Your task to perform on an android device: Search for the new Nintendo switch on Walmart. Image 0: 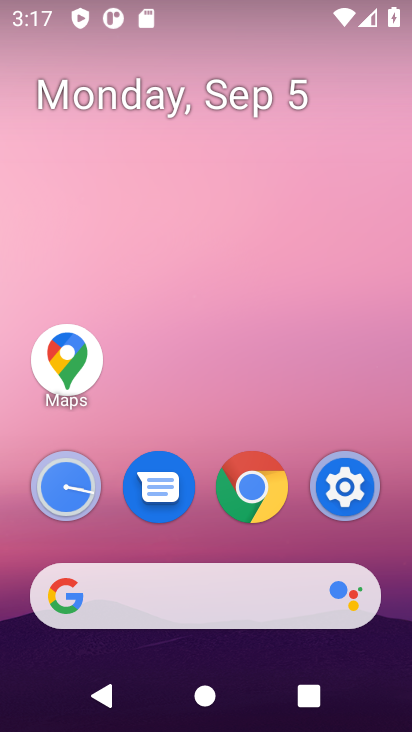
Step 0: drag from (221, 517) to (245, 43)
Your task to perform on an android device: Search for the new Nintendo switch on Walmart. Image 1: 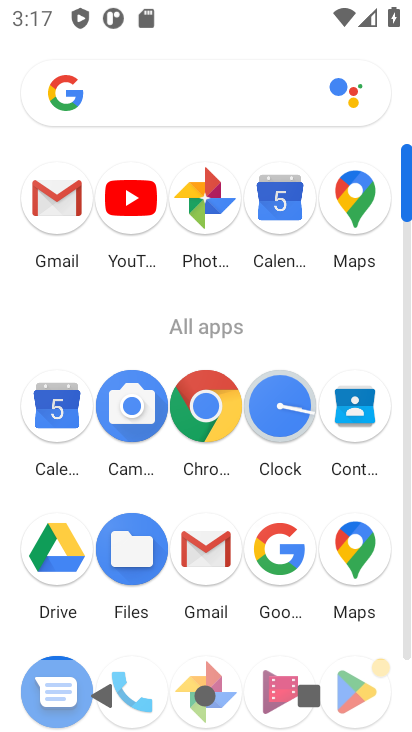
Step 1: click (208, 409)
Your task to perform on an android device: Search for the new Nintendo switch on Walmart. Image 2: 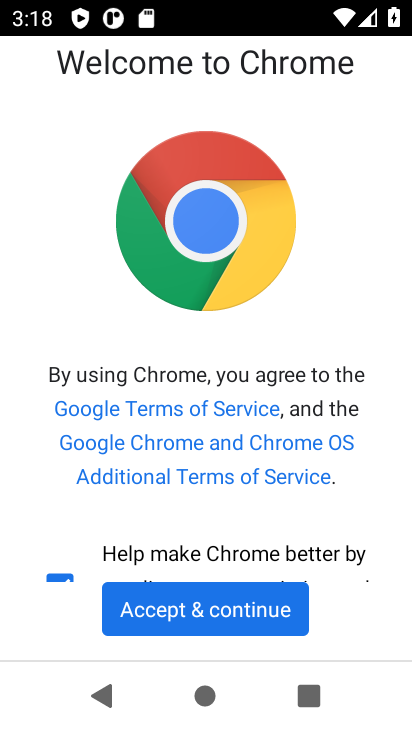
Step 2: click (240, 596)
Your task to perform on an android device: Search for the new Nintendo switch on Walmart. Image 3: 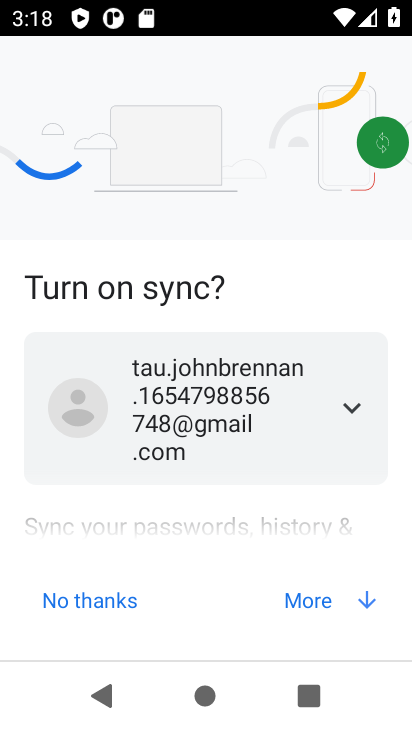
Step 3: click (314, 603)
Your task to perform on an android device: Search for the new Nintendo switch on Walmart. Image 4: 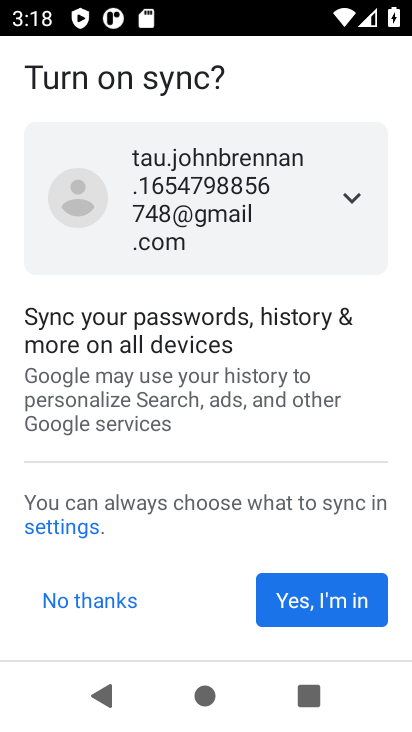
Step 4: click (357, 606)
Your task to perform on an android device: Search for the new Nintendo switch on Walmart. Image 5: 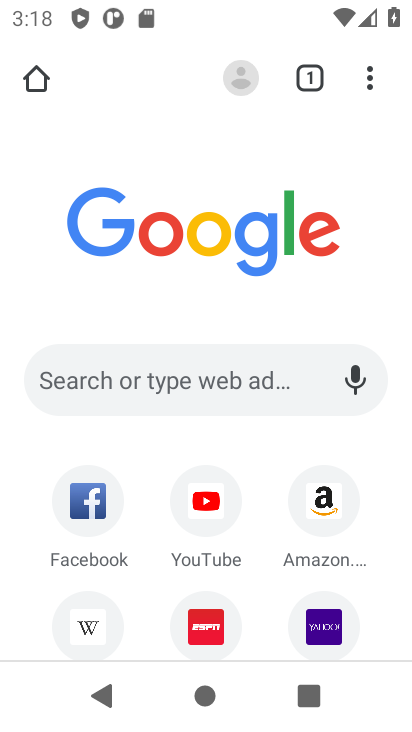
Step 5: click (167, 366)
Your task to perform on an android device: Search for the new Nintendo switch on Walmart. Image 6: 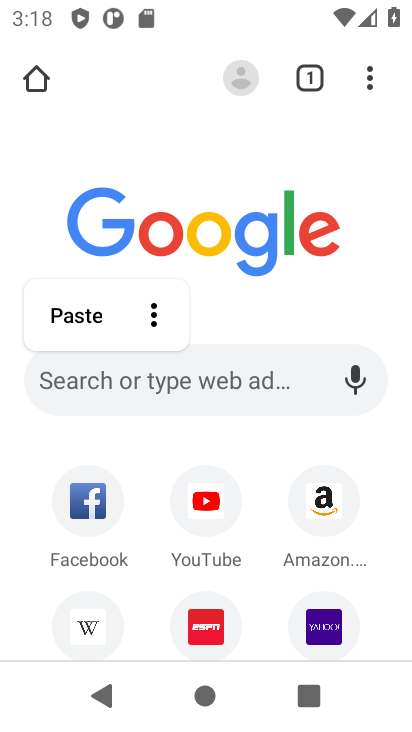
Step 6: click (184, 366)
Your task to perform on an android device: Search for the new Nintendo switch on Walmart. Image 7: 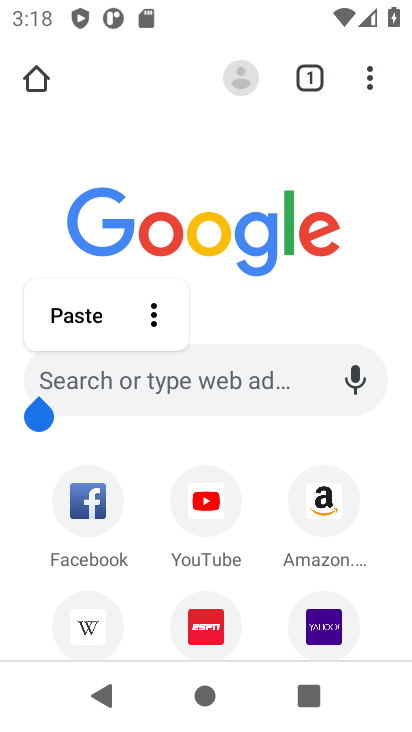
Step 7: click (86, 374)
Your task to perform on an android device: Search for the new Nintendo switch on Walmart. Image 8: 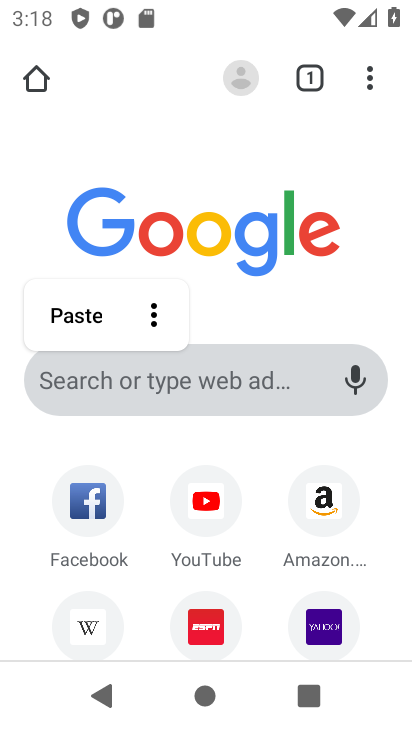
Step 8: click (86, 374)
Your task to perform on an android device: Search for the new Nintendo switch on Walmart. Image 9: 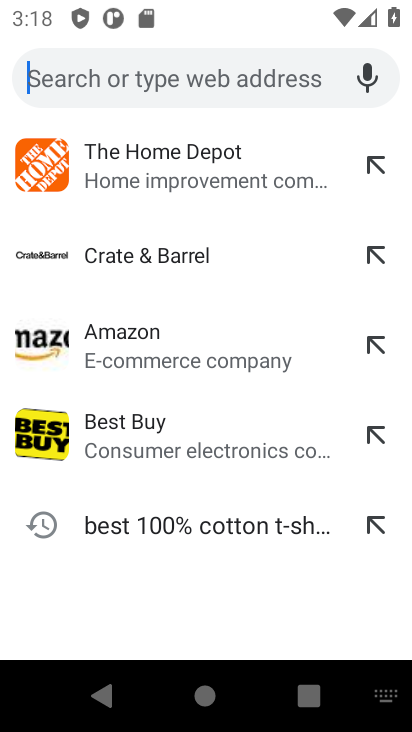
Step 9: type " Walmart."
Your task to perform on an android device: Search for the new Nintendo switch on Walmart. Image 10: 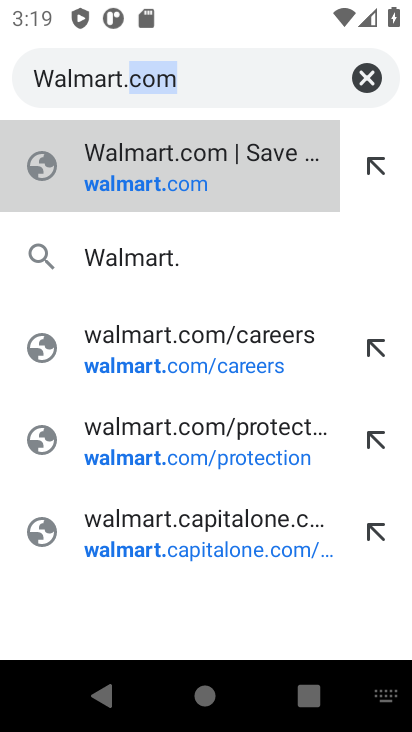
Step 10: click (153, 177)
Your task to perform on an android device: Search for the new Nintendo switch on Walmart. Image 11: 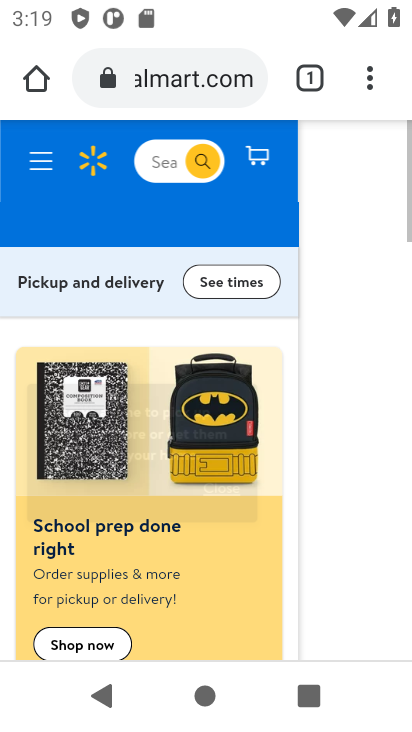
Step 11: click (203, 155)
Your task to perform on an android device: Search for the new Nintendo switch on Walmart. Image 12: 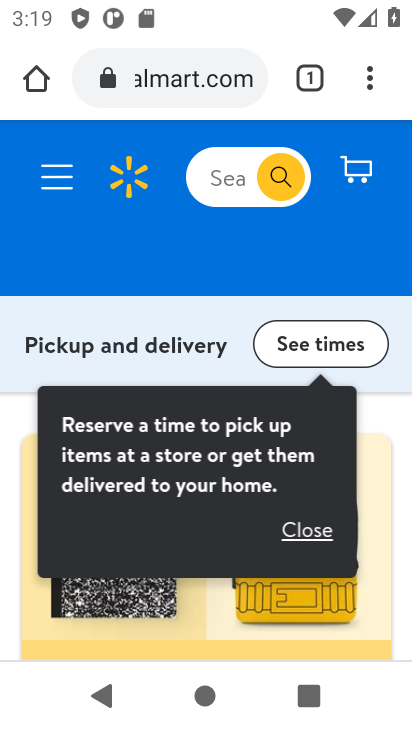
Step 12: click (270, 169)
Your task to perform on an android device: Search for the new Nintendo switch on Walmart. Image 13: 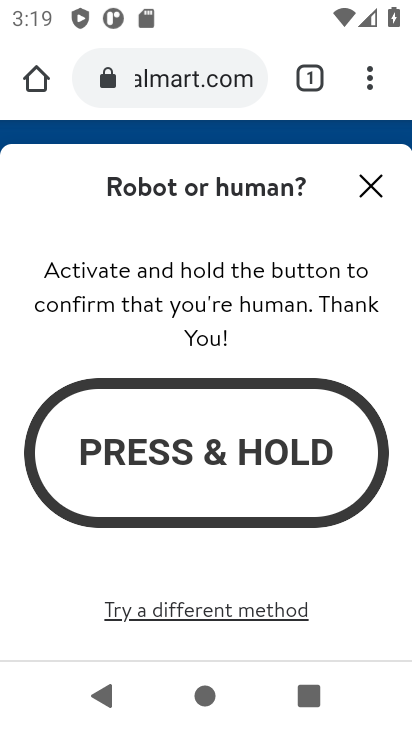
Step 13: click (365, 189)
Your task to perform on an android device: Search for the new Nintendo switch on Walmart. Image 14: 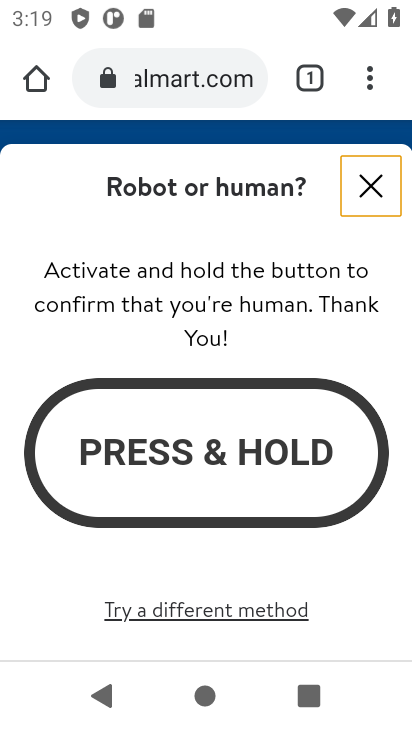
Step 14: click (377, 172)
Your task to perform on an android device: Search for the new Nintendo switch on Walmart. Image 15: 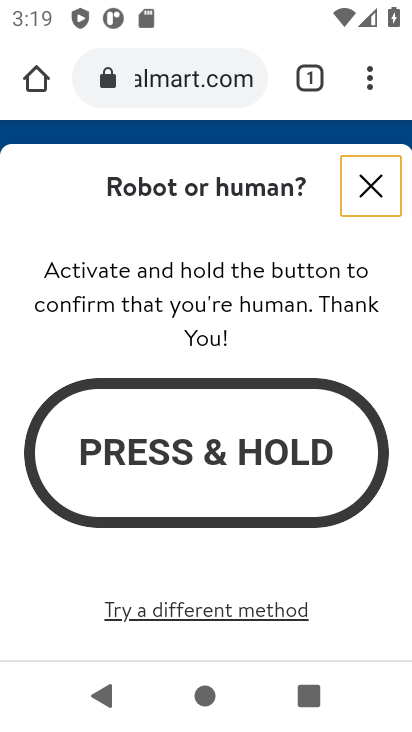
Step 15: task complete